Your task to perform on an android device: Go to ESPN.com Image 0: 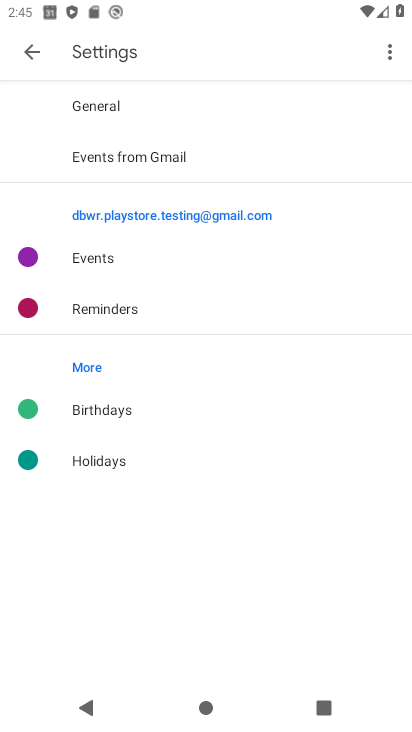
Step 0: press home button
Your task to perform on an android device: Go to ESPN.com Image 1: 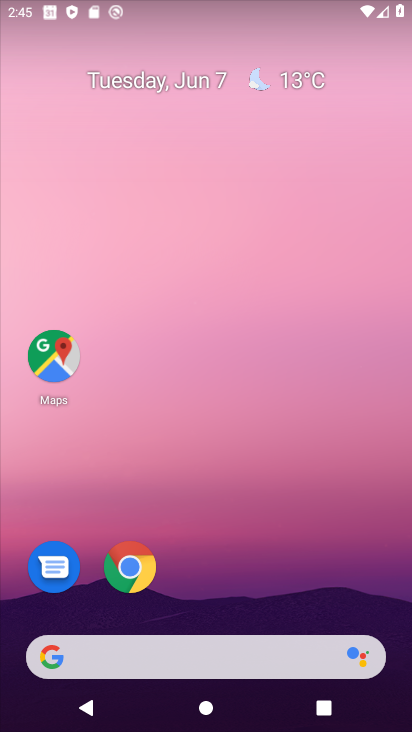
Step 1: click (140, 568)
Your task to perform on an android device: Go to ESPN.com Image 2: 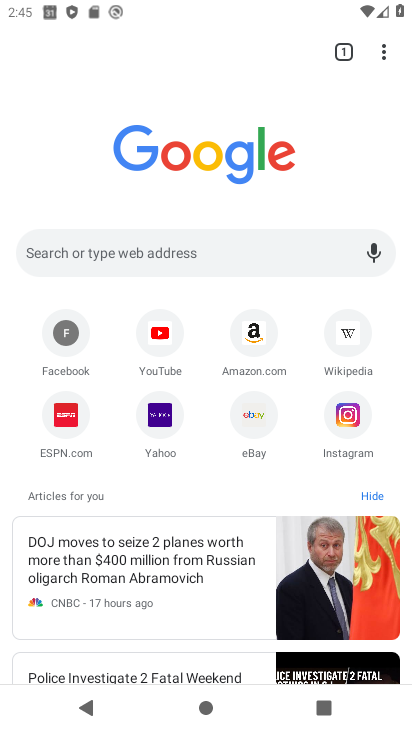
Step 2: click (57, 423)
Your task to perform on an android device: Go to ESPN.com Image 3: 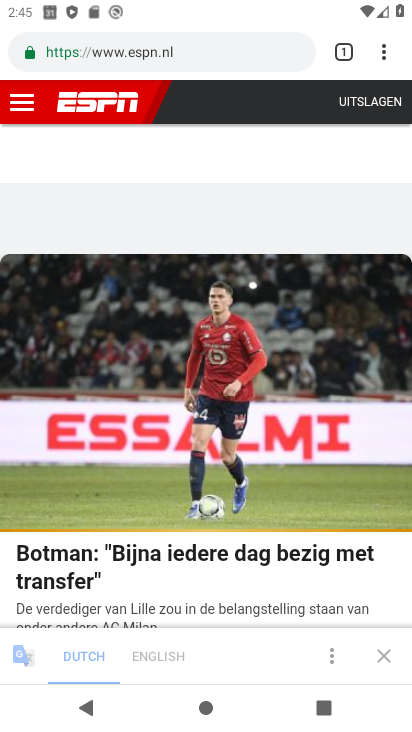
Step 3: task complete